Your task to perform on an android device: change the clock style Image 0: 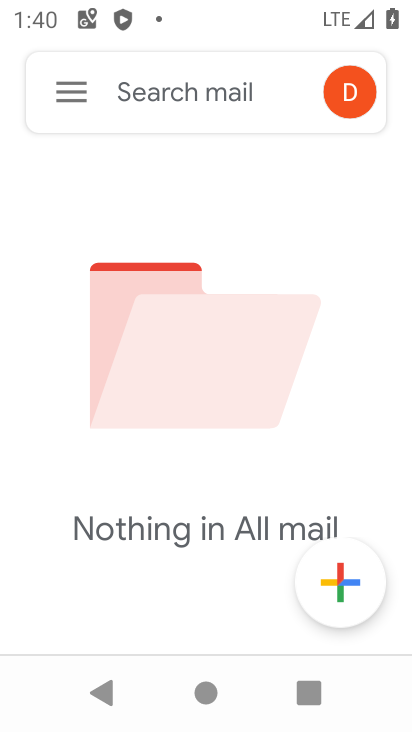
Step 0: press home button
Your task to perform on an android device: change the clock style Image 1: 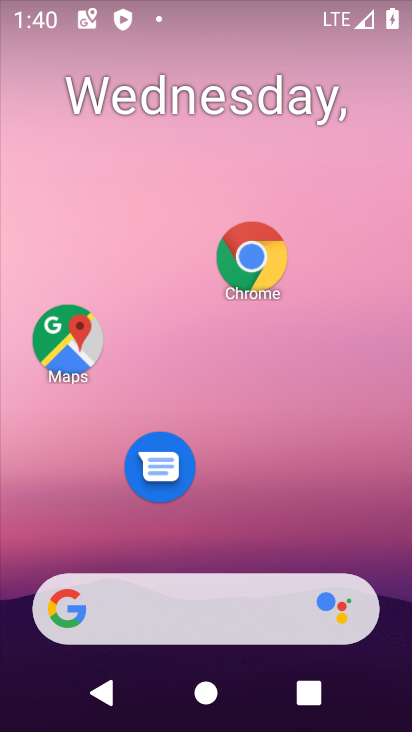
Step 1: drag from (283, 513) to (261, 86)
Your task to perform on an android device: change the clock style Image 2: 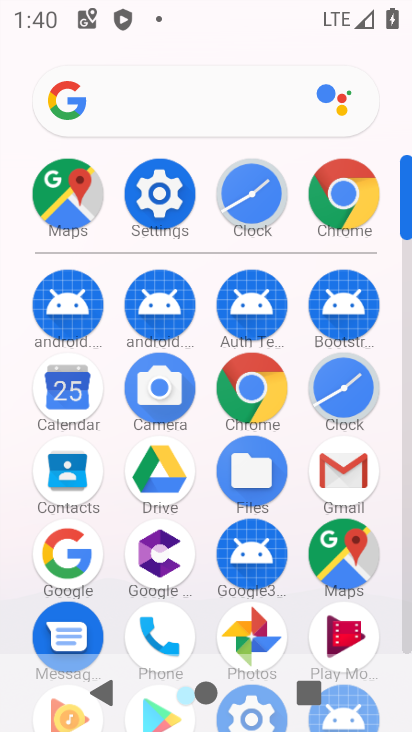
Step 2: click (243, 200)
Your task to perform on an android device: change the clock style Image 3: 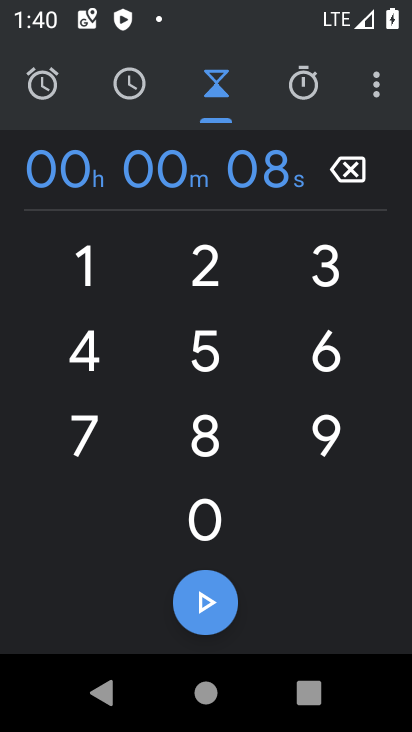
Step 3: click (368, 91)
Your task to perform on an android device: change the clock style Image 4: 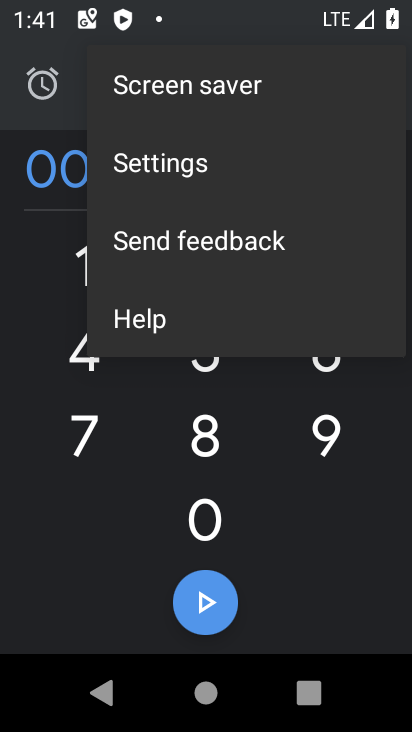
Step 4: click (263, 171)
Your task to perform on an android device: change the clock style Image 5: 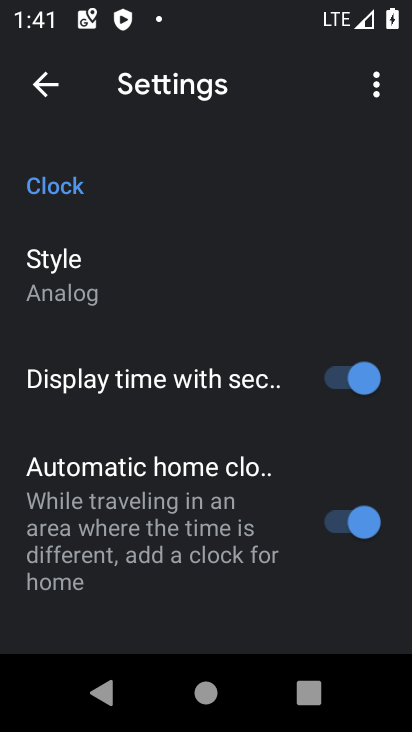
Step 5: click (103, 298)
Your task to perform on an android device: change the clock style Image 6: 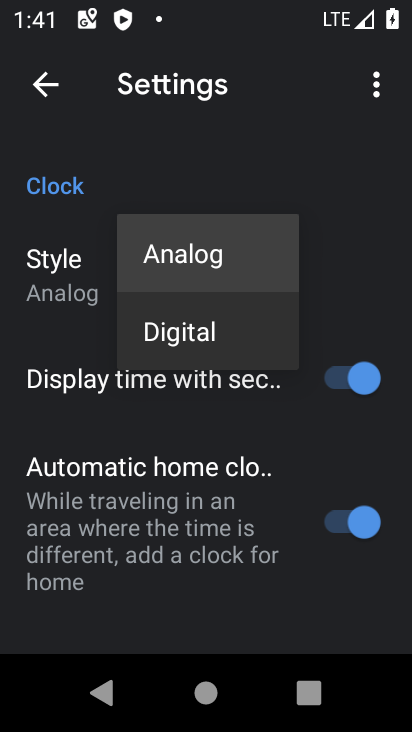
Step 6: click (187, 318)
Your task to perform on an android device: change the clock style Image 7: 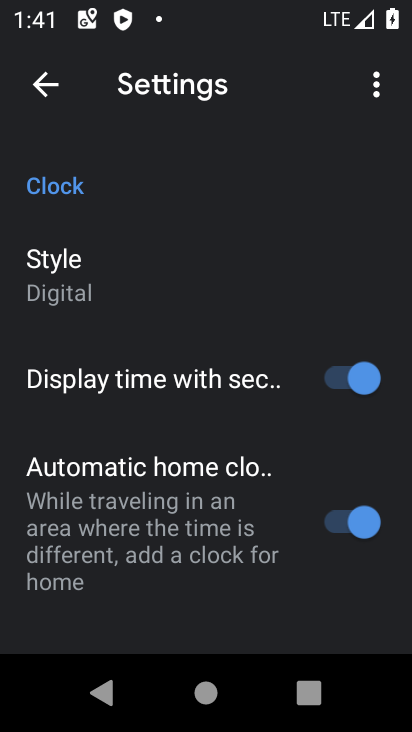
Step 7: task complete